Your task to perform on an android device: Is it going to rain today? Image 0: 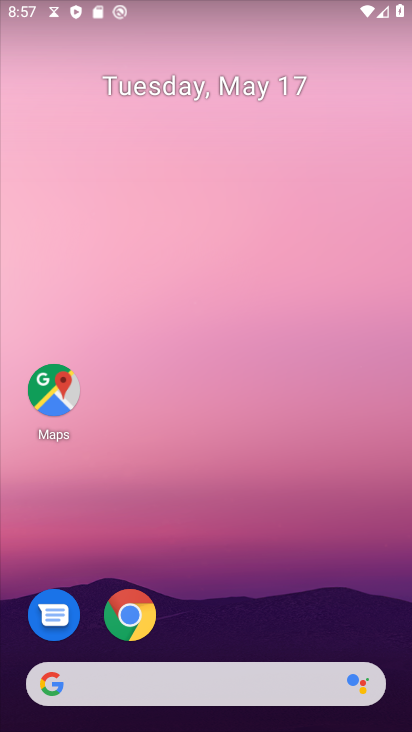
Step 0: drag from (2, 267) to (391, 222)
Your task to perform on an android device: Is it going to rain today? Image 1: 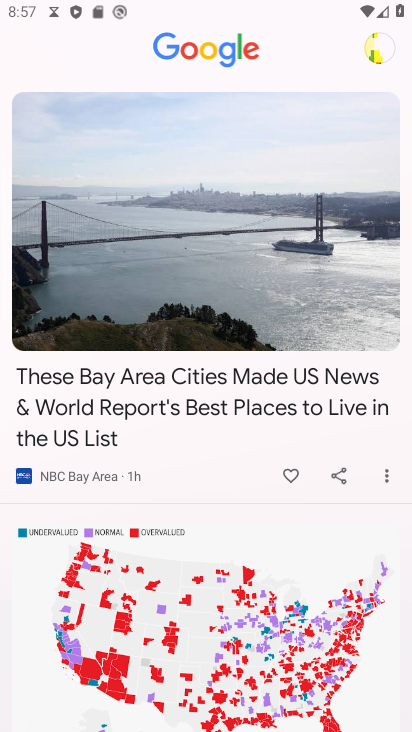
Step 1: drag from (285, 286) to (284, 508)
Your task to perform on an android device: Is it going to rain today? Image 2: 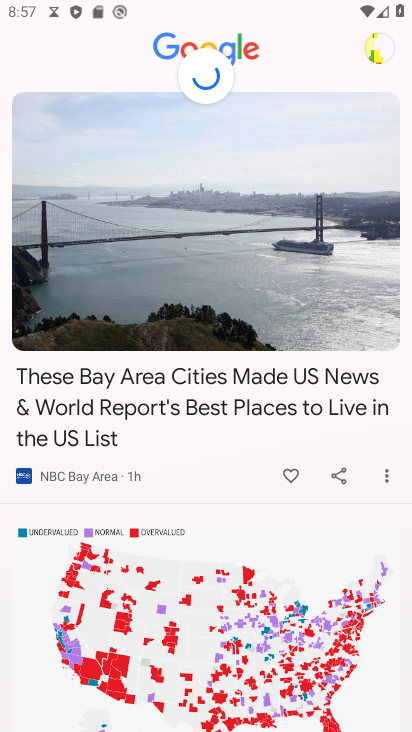
Step 2: drag from (325, 219) to (322, 469)
Your task to perform on an android device: Is it going to rain today? Image 3: 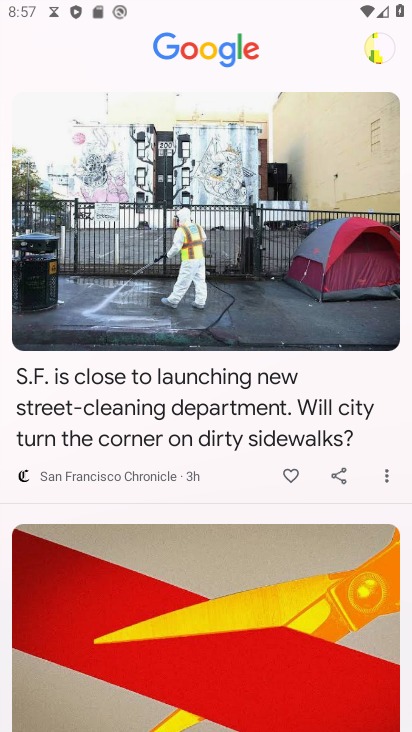
Step 3: drag from (312, 282) to (301, 590)
Your task to perform on an android device: Is it going to rain today? Image 4: 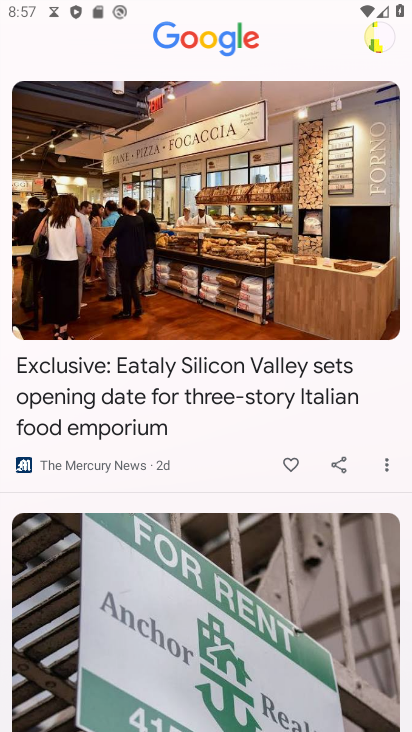
Step 4: press back button
Your task to perform on an android device: Is it going to rain today? Image 5: 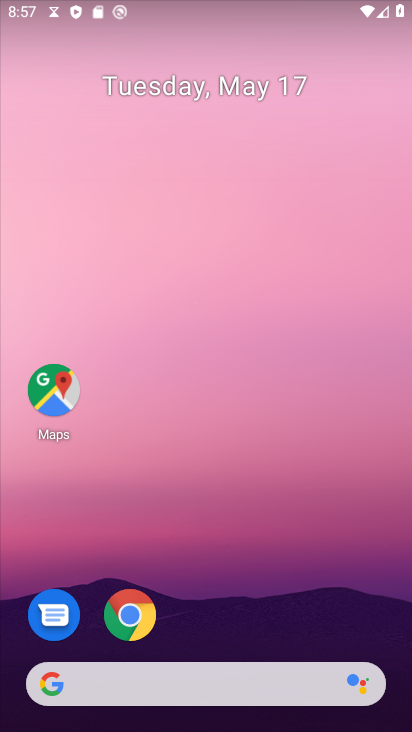
Step 5: drag from (199, 643) to (272, 285)
Your task to perform on an android device: Is it going to rain today? Image 6: 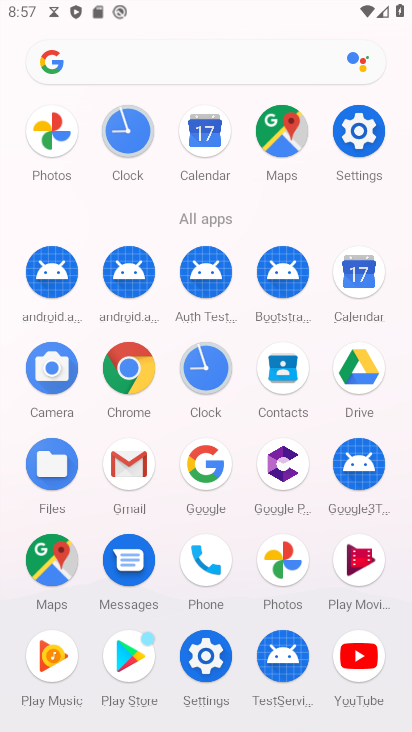
Step 6: click (217, 466)
Your task to perform on an android device: Is it going to rain today? Image 7: 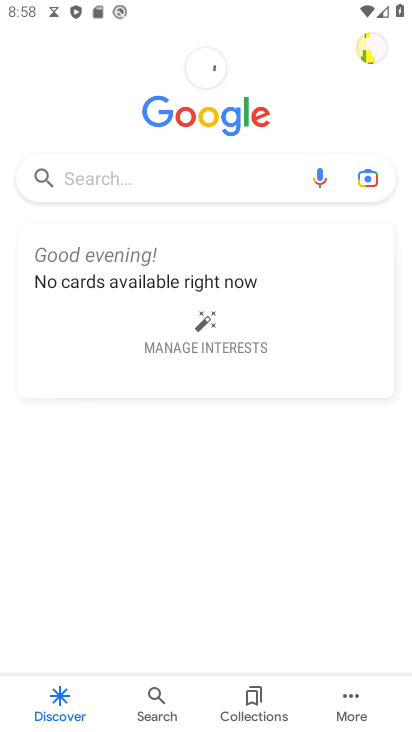
Step 7: click (121, 186)
Your task to perform on an android device: Is it going to rain today? Image 8: 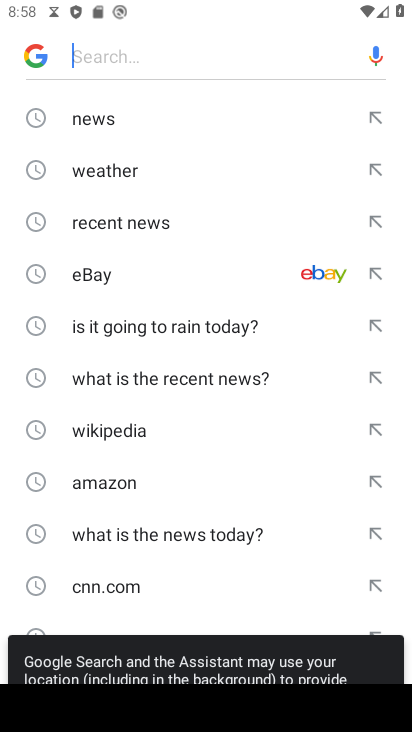
Step 8: click (170, 171)
Your task to perform on an android device: Is it going to rain today? Image 9: 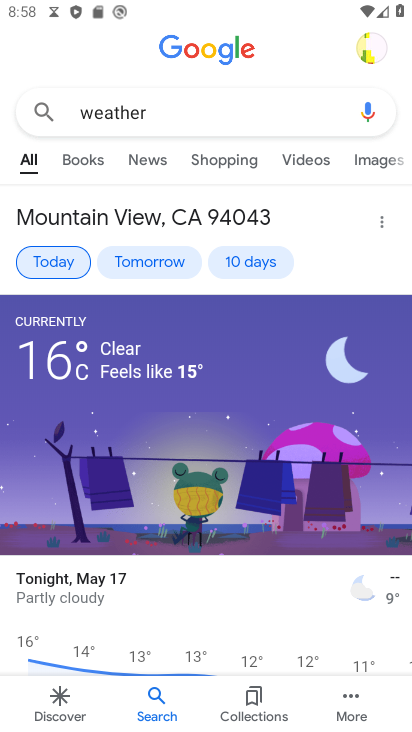
Step 9: task complete